Your task to perform on an android device: Open Youtube and go to the subscriptions tab Image 0: 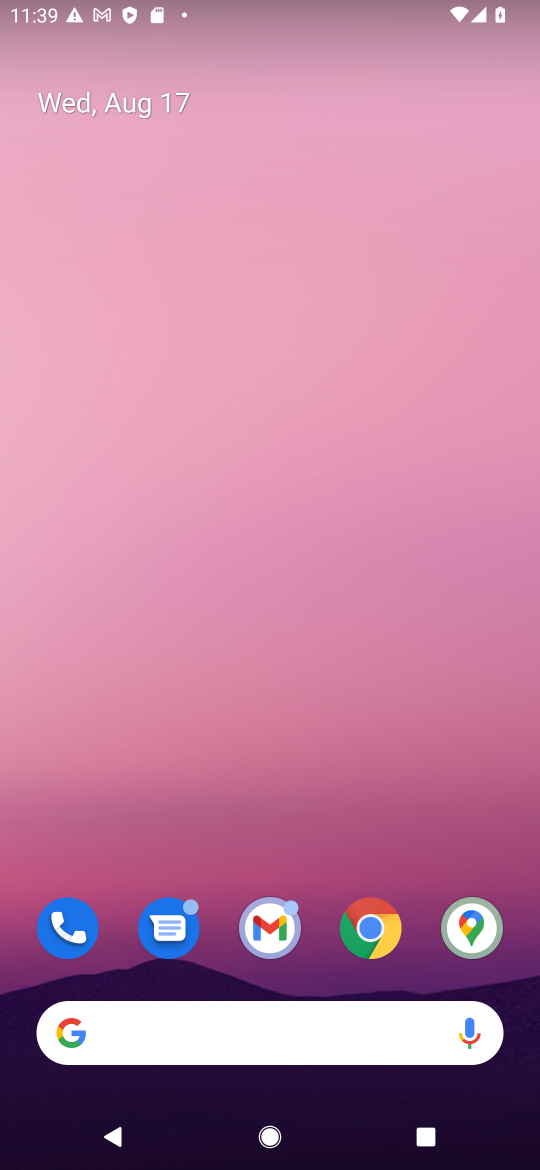
Step 0: drag from (320, 862) to (325, 273)
Your task to perform on an android device: Open Youtube and go to the subscriptions tab Image 1: 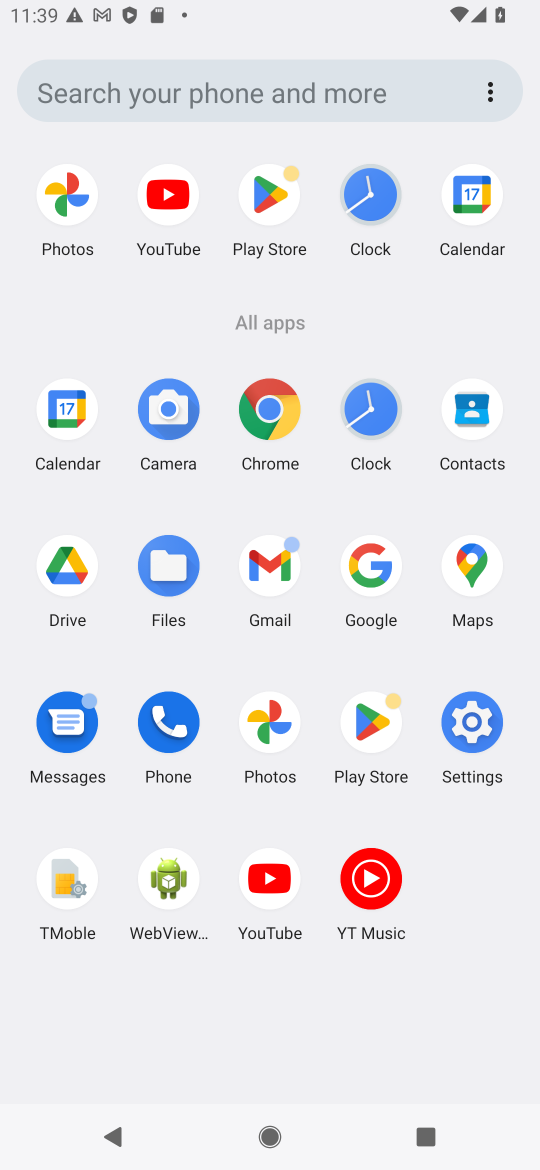
Step 1: click (280, 885)
Your task to perform on an android device: Open Youtube and go to the subscriptions tab Image 2: 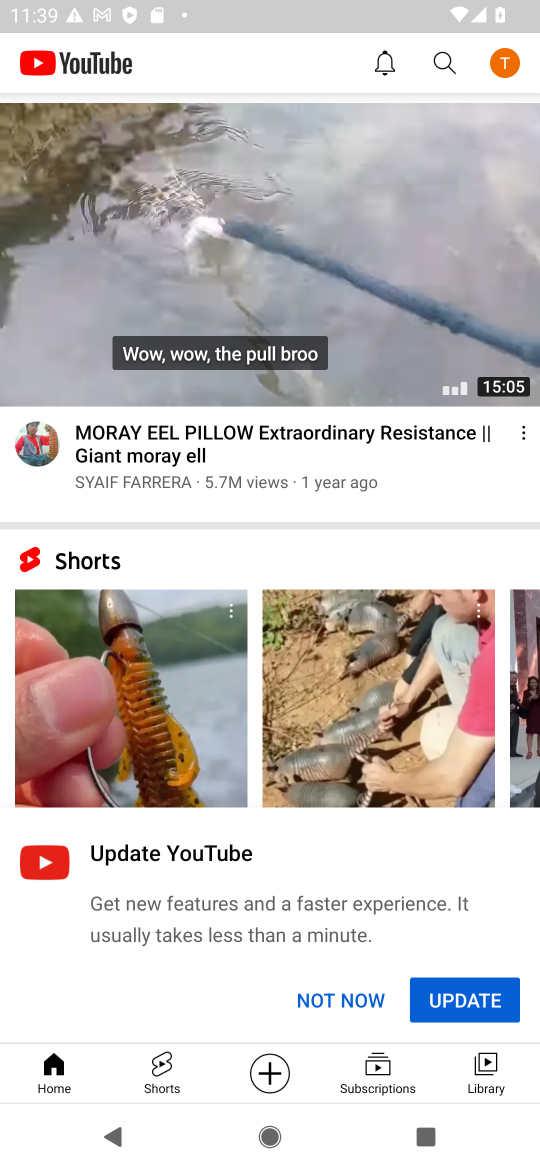
Step 2: click (367, 1071)
Your task to perform on an android device: Open Youtube and go to the subscriptions tab Image 3: 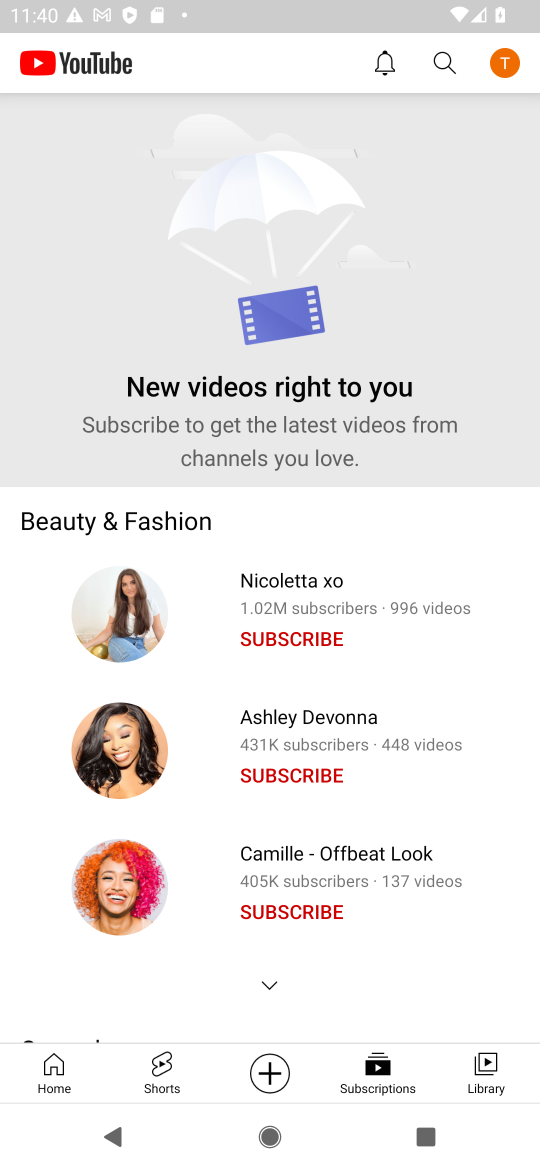
Step 3: task complete